Your task to perform on an android device: Open calendar and show me the second week of next month Image 0: 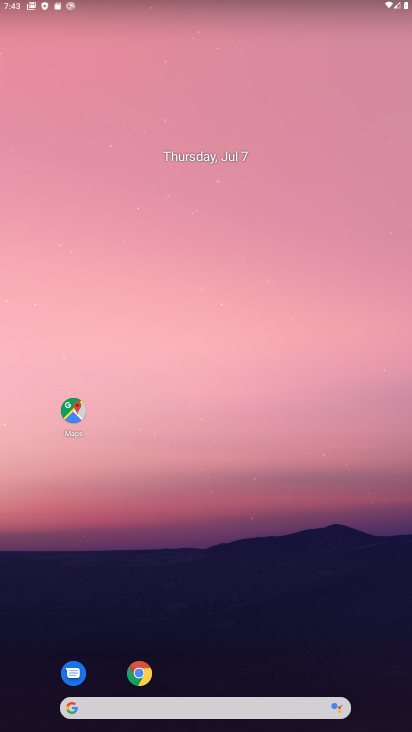
Step 0: drag from (240, 677) to (208, 217)
Your task to perform on an android device: Open calendar and show me the second week of next month Image 1: 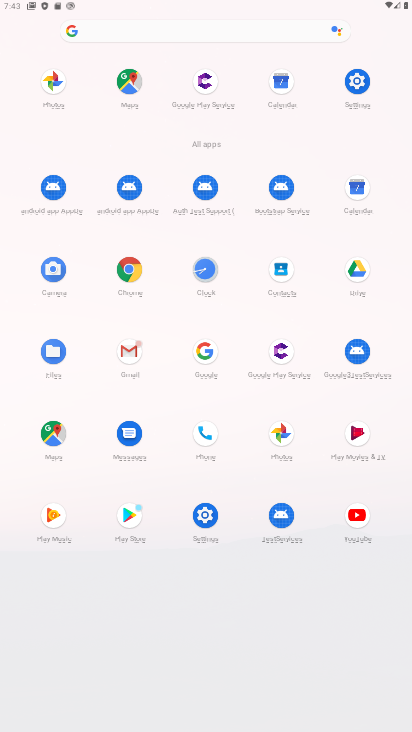
Step 1: click (336, 180)
Your task to perform on an android device: Open calendar and show me the second week of next month Image 2: 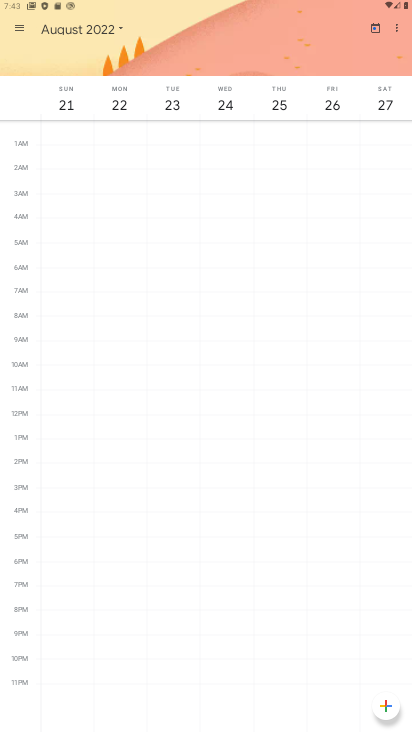
Step 2: task complete